Your task to perform on an android device: change the clock display to analog Image 0: 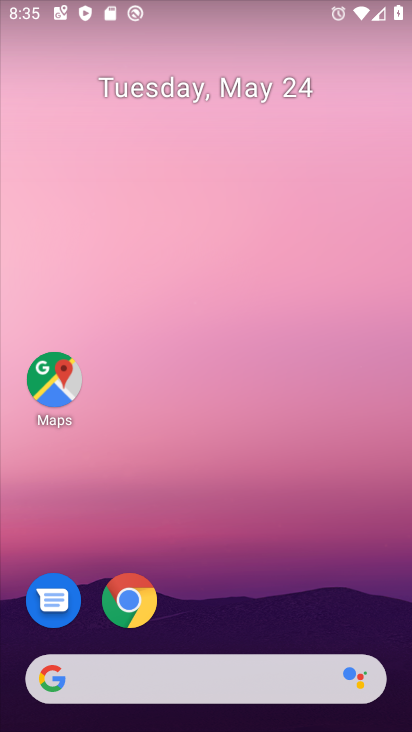
Step 0: drag from (183, 716) to (122, 35)
Your task to perform on an android device: change the clock display to analog Image 1: 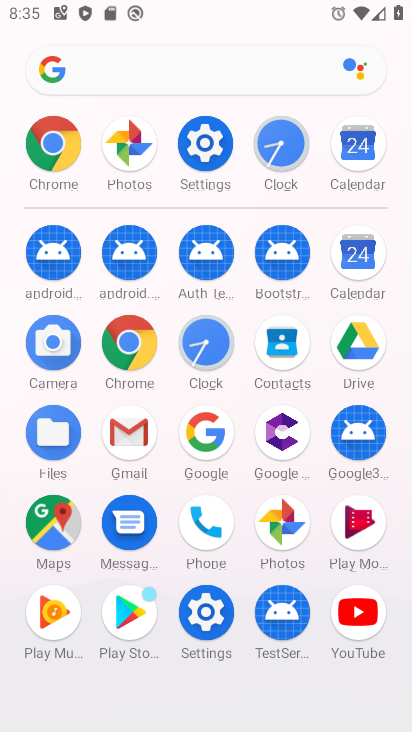
Step 1: click (204, 334)
Your task to perform on an android device: change the clock display to analog Image 2: 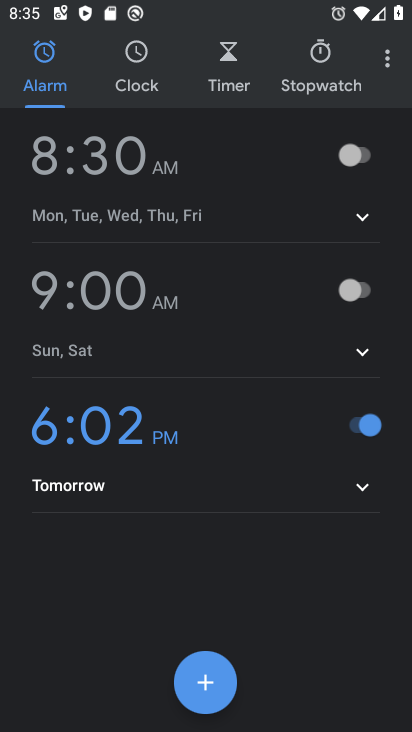
Step 2: click (382, 63)
Your task to perform on an android device: change the clock display to analog Image 3: 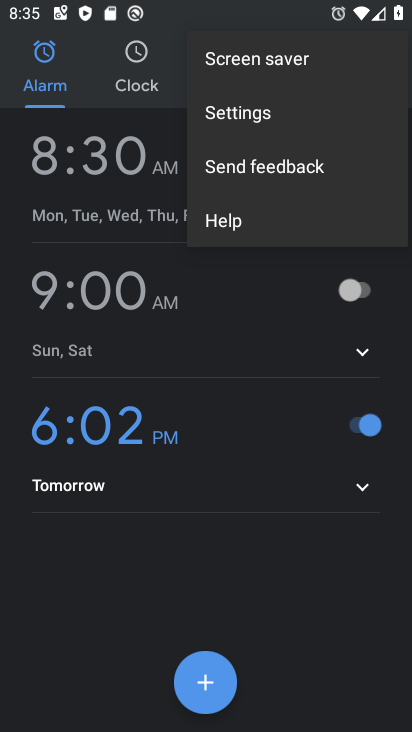
Step 3: click (254, 110)
Your task to perform on an android device: change the clock display to analog Image 4: 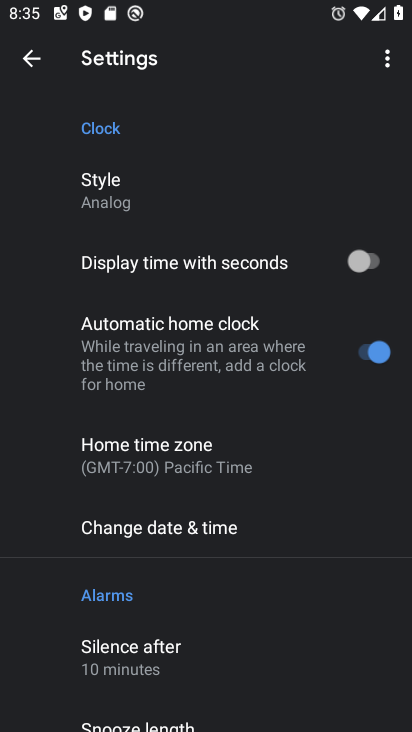
Step 4: task complete